Your task to perform on an android device: toggle pop-ups in chrome Image 0: 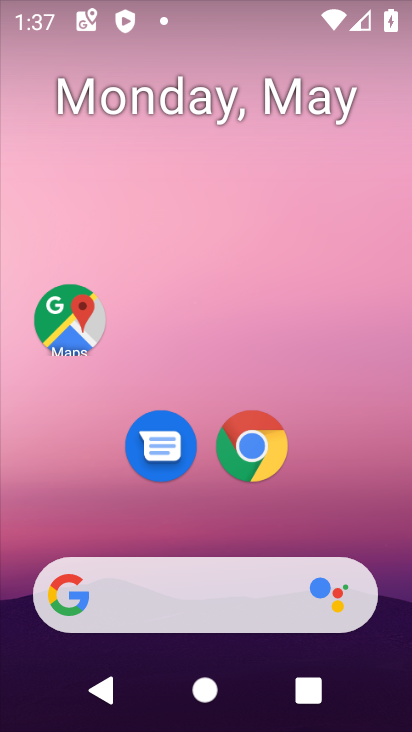
Step 0: click (268, 451)
Your task to perform on an android device: toggle pop-ups in chrome Image 1: 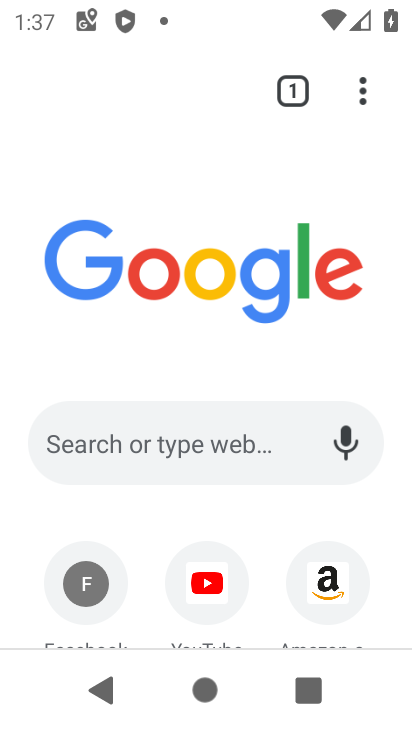
Step 1: drag from (357, 92) to (118, 466)
Your task to perform on an android device: toggle pop-ups in chrome Image 2: 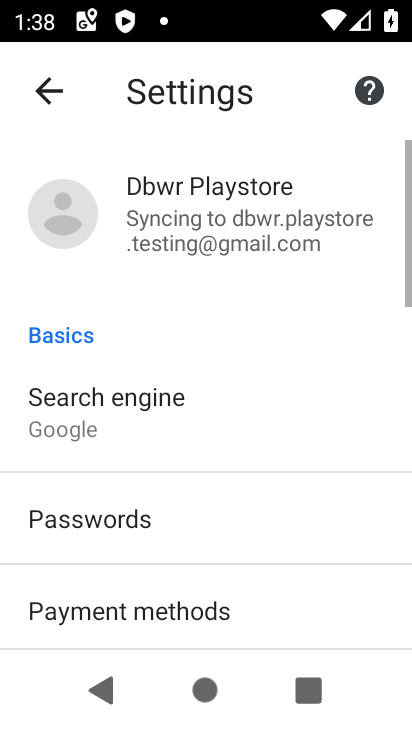
Step 2: drag from (157, 568) to (151, 172)
Your task to perform on an android device: toggle pop-ups in chrome Image 3: 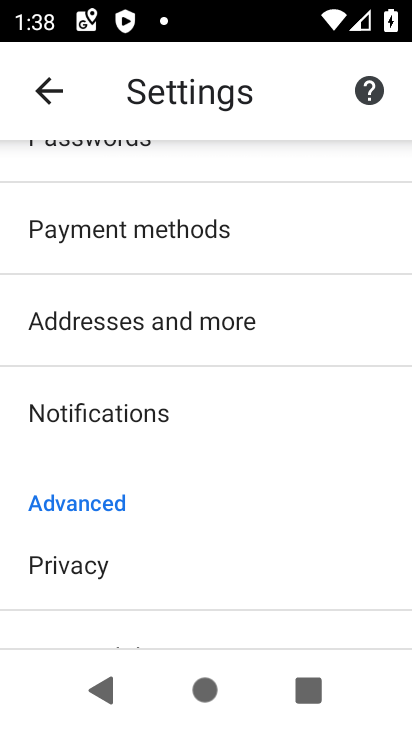
Step 3: drag from (165, 530) to (177, 131)
Your task to perform on an android device: toggle pop-ups in chrome Image 4: 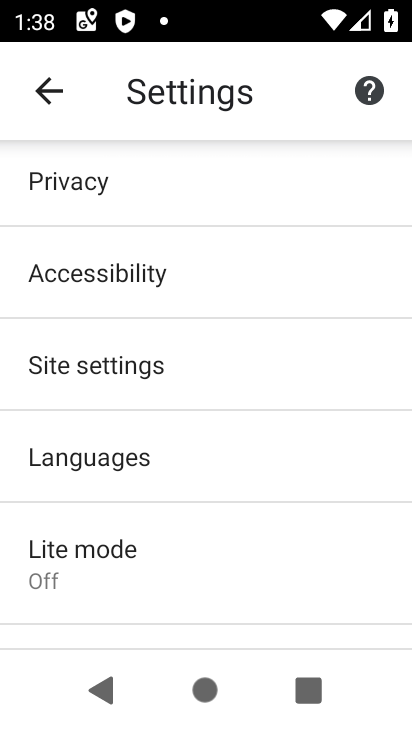
Step 4: click (128, 364)
Your task to perform on an android device: toggle pop-ups in chrome Image 5: 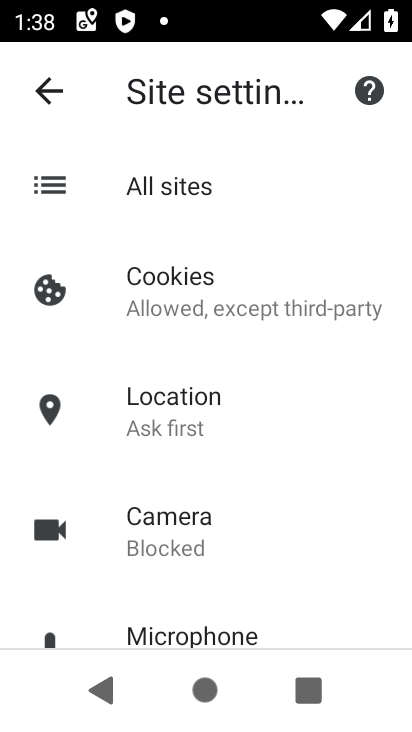
Step 5: drag from (194, 522) to (193, 232)
Your task to perform on an android device: toggle pop-ups in chrome Image 6: 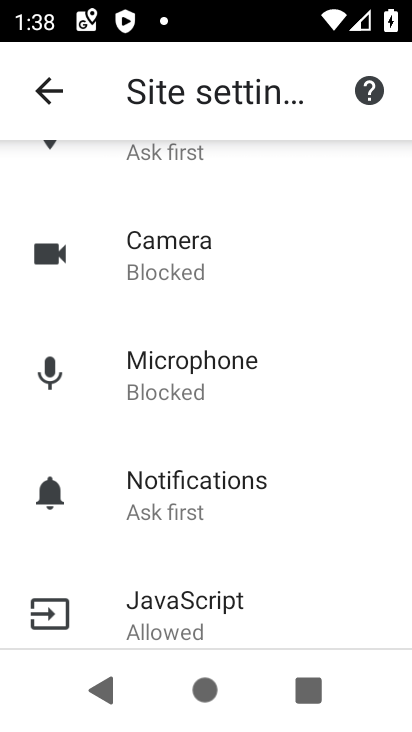
Step 6: drag from (188, 554) to (201, 204)
Your task to perform on an android device: toggle pop-ups in chrome Image 7: 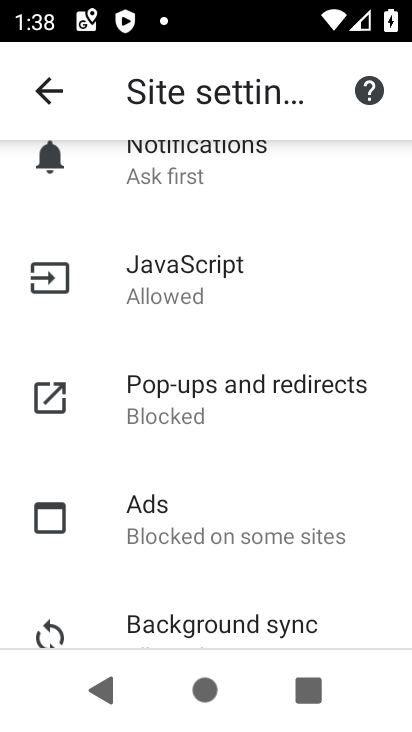
Step 7: click (194, 423)
Your task to perform on an android device: toggle pop-ups in chrome Image 8: 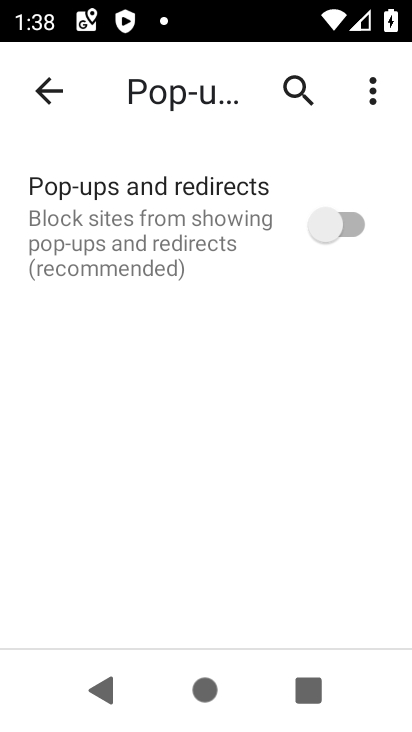
Step 8: click (348, 231)
Your task to perform on an android device: toggle pop-ups in chrome Image 9: 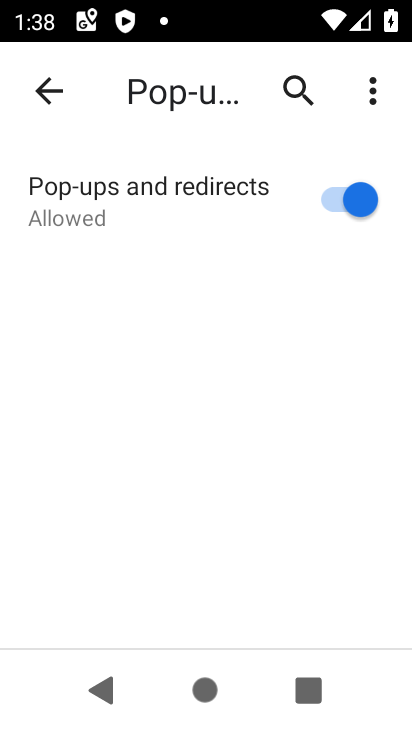
Step 9: task complete